Your task to perform on an android device: change the clock display to show seconds Image 0: 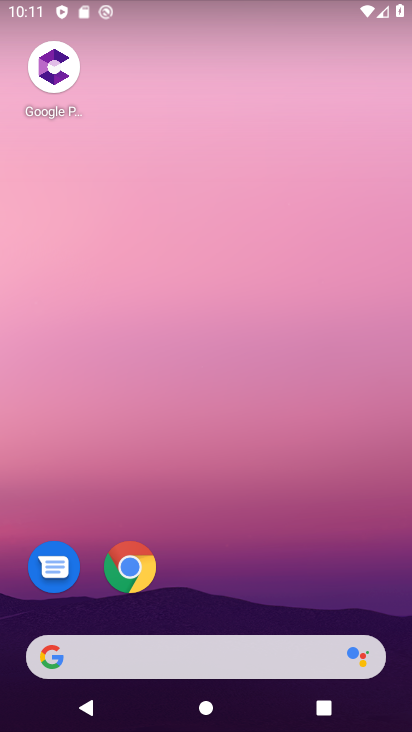
Step 0: drag from (359, 529) to (257, 147)
Your task to perform on an android device: change the clock display to show seconds Image 1: 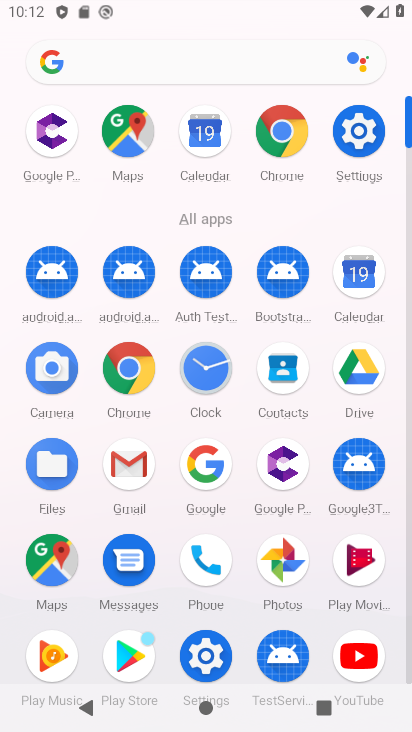
Step 1: click (205, 390)
Your task to perform on an android device: change the clock display to show seconds Image 2: 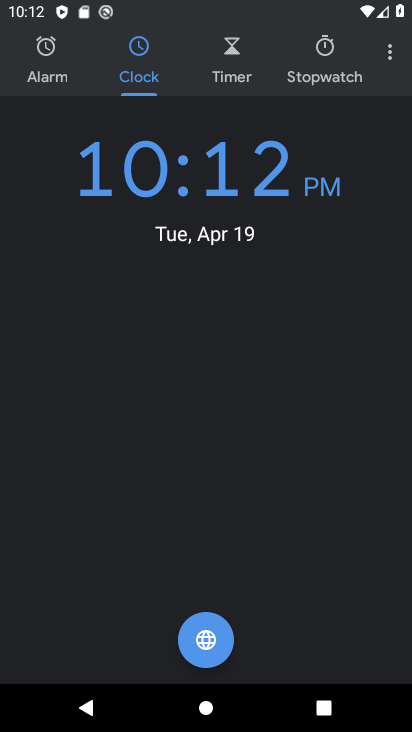
Step 2: click (384, 48)
Your task to perform on an android device: change the clock display to show seconds Image 3: 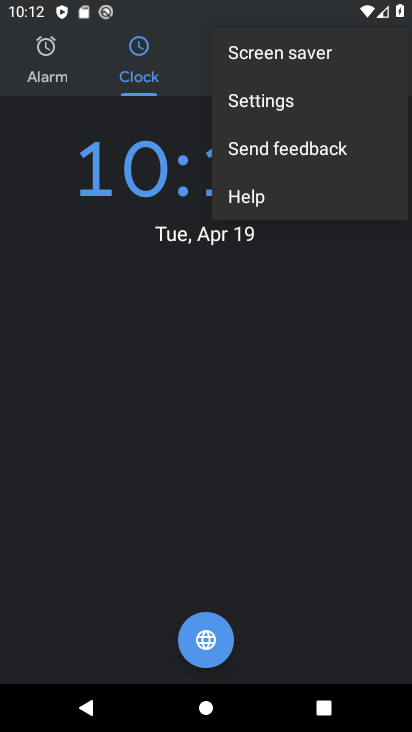
Step 3: click (354, 95)
Your task to perform on an android device: change the clock display to show seconds Image 4: 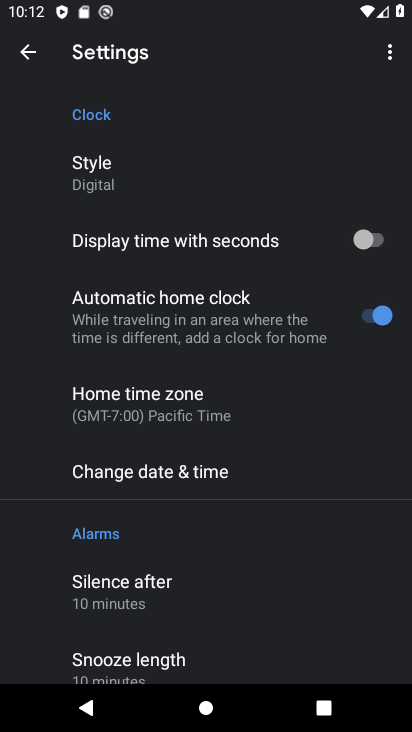
Step 4: click (364, 240)
Your task to perform on an android device: change the clock display to show seconds Image 5: 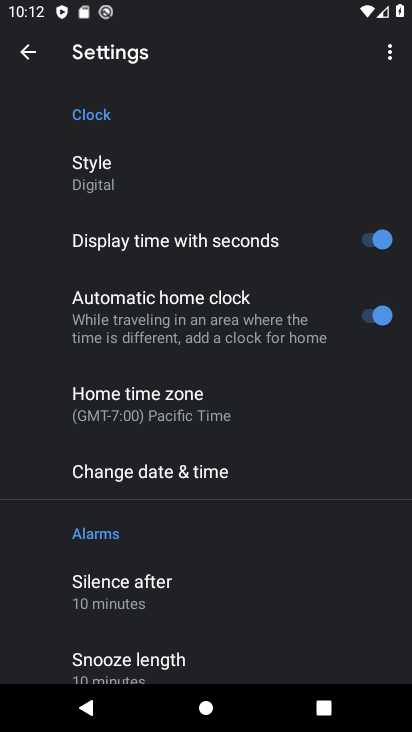
Step 5: task complete